Your task to perform on an android device: toggle improve location accuracy Image 0: 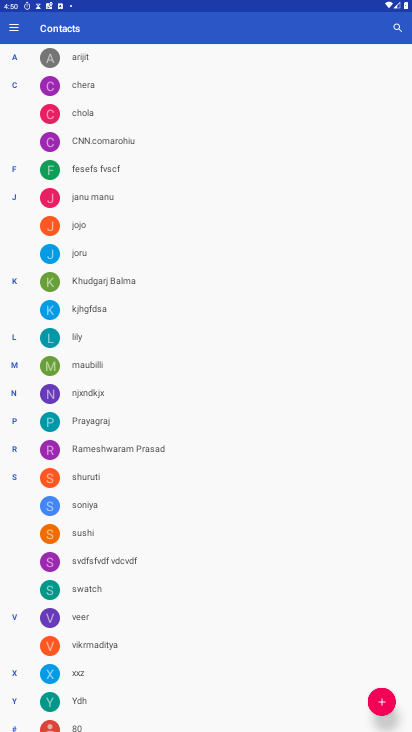
Step 0: press home button
Your task to perform on an android device: toggle improve location accuracy Image 1: 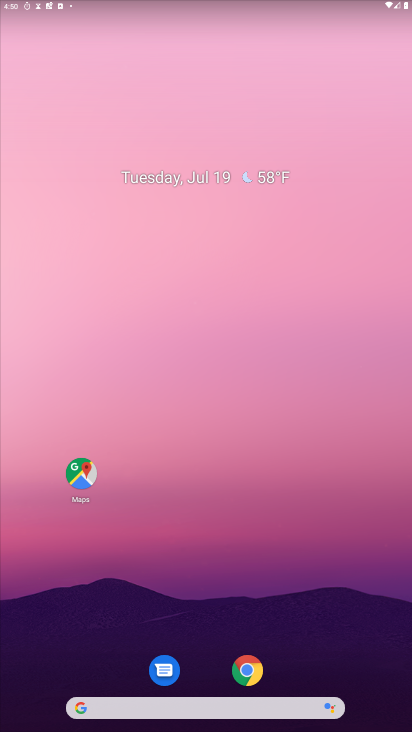
Step 1: drag from (283, 707) to (367, 2)
Your task to perform on an android device: toggle improve location accuracy Image 2: 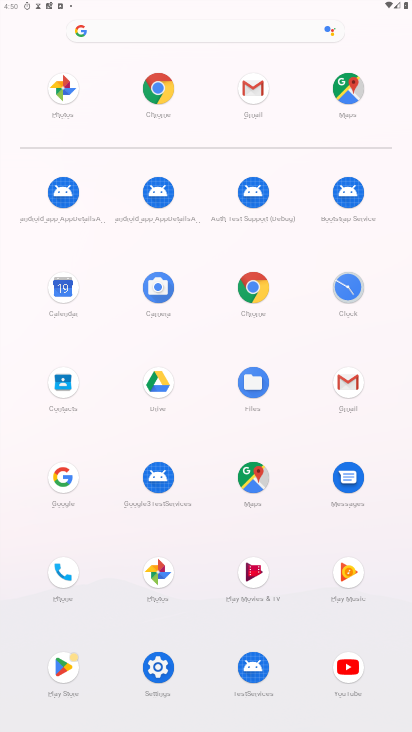
Step 2: click (151, 668)
Your task to perform on an android device: toggle improve location accuracy Image 3: 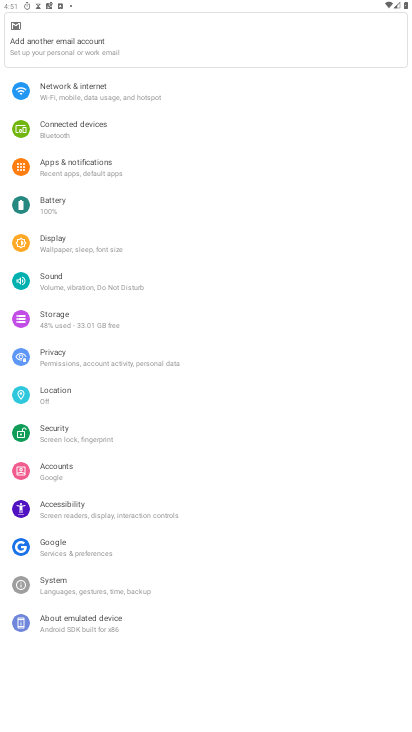
Step 3: click (40, 391)
Your task to perform on an android device: toggle improve location accuracy Image 4: 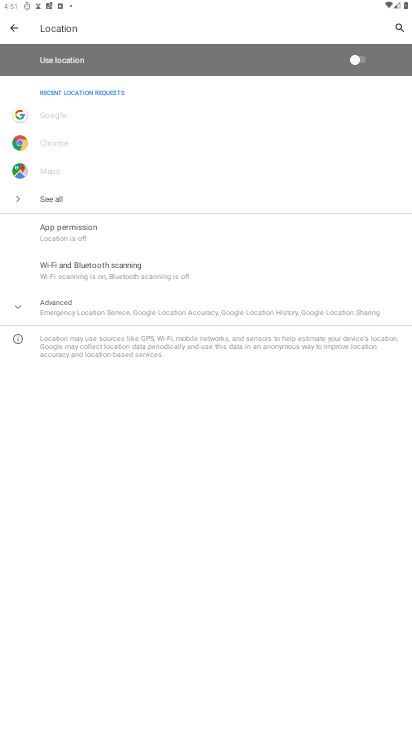
Step 4: click (134, 309)
Your task to perform on an android device: toggle improve location accuracy Image 5: 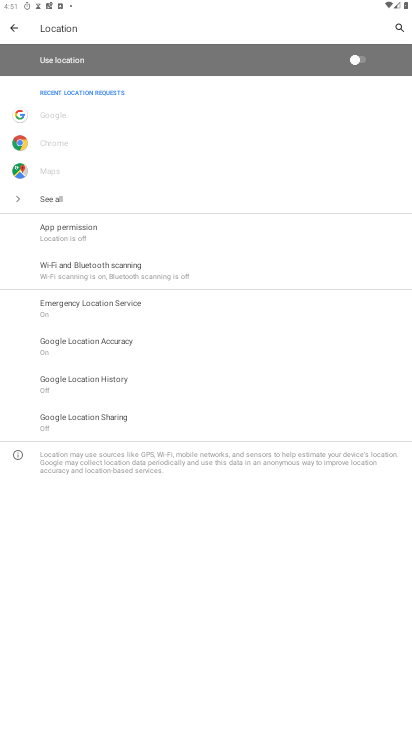
Step 5: click (124, 338)
Your task to perform on an android device: toggle improve location accuracy Image 6: 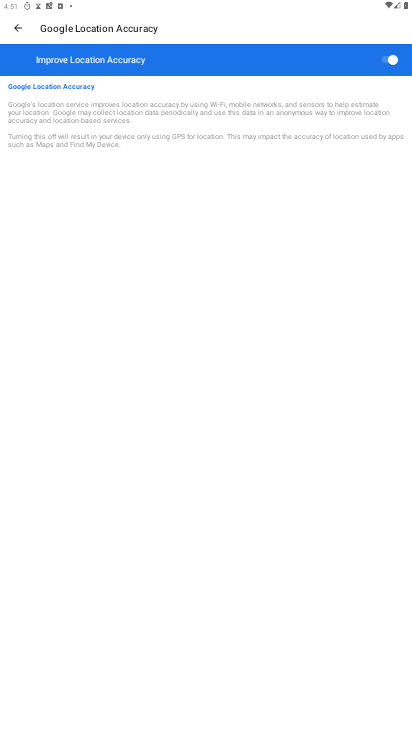
Step 6: click (391, 55)
Your task to perform on an android device: toggle improve location accuracy Image 7: 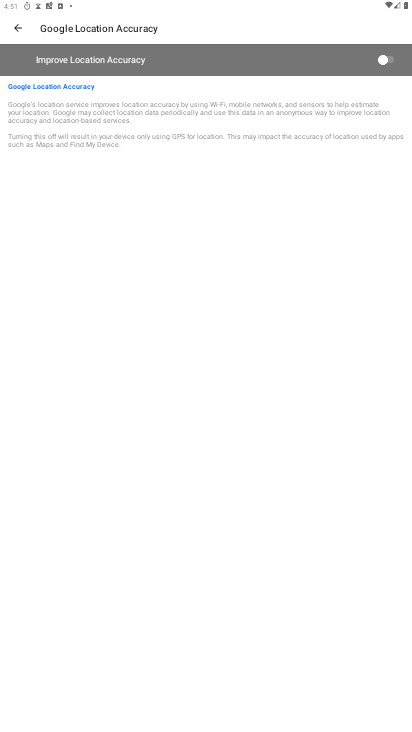
Step 7: task complete